Your task to perform on an android device: open chrome and create a bookmark for the current page Image 0: 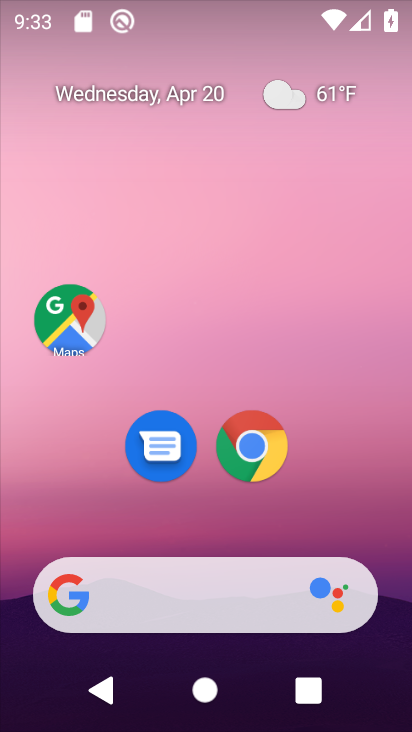
Step 0: drag from (373, 490) to (322, 95)
Your task to perform on an android device: open chrome and create a bookmark for the current page Image 1: 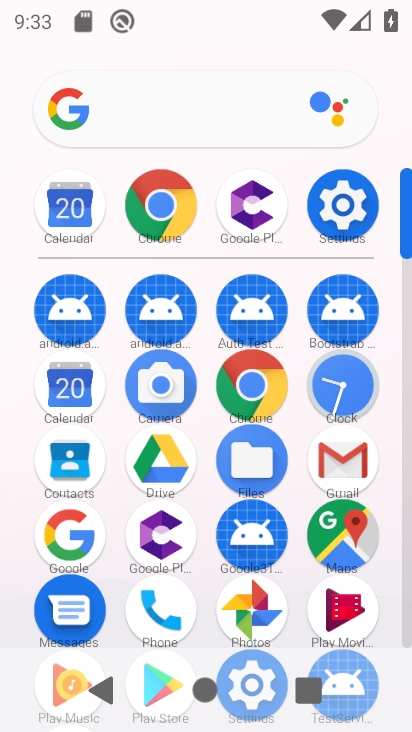
Step 1: click (264, 376)
Your task to perform on an android device: open chrome and create a bookmark for the current page Image 2: 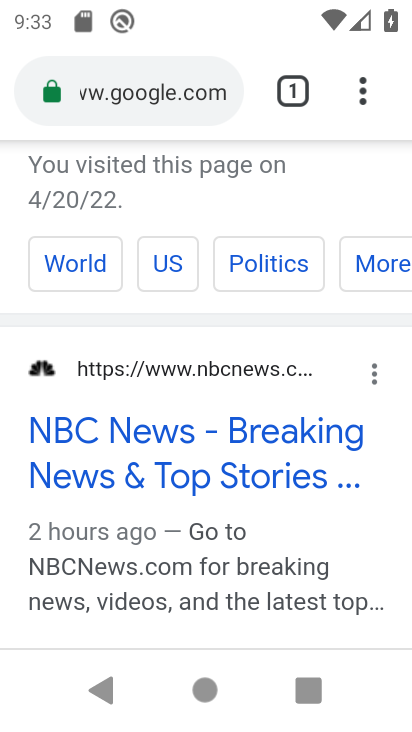
Step 2: drag from (333, 185) to (286, 595)
Your task to perform on an android device: open chrome and create a bookmark for the current page Image 3: 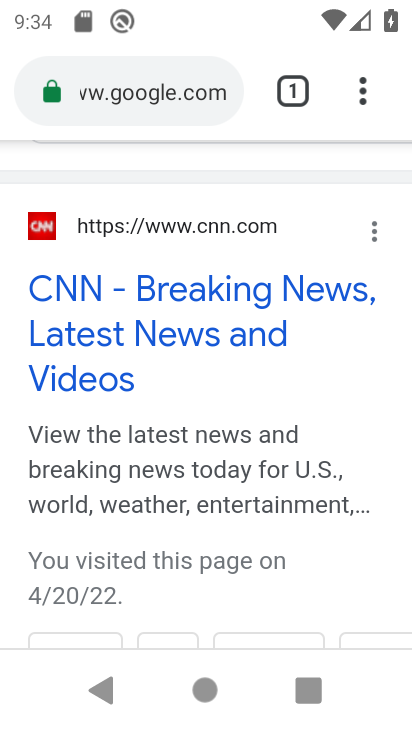
Step 3: click (305, 93)
Your task to perform on an android device: open chrome and create a bookmark for the current page Image 4: 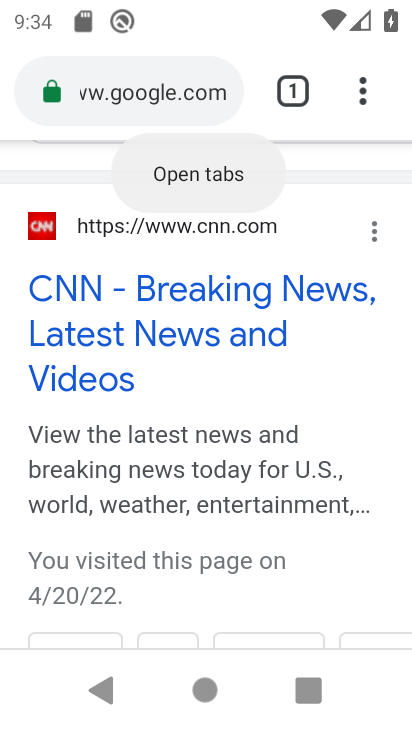
Step 4: click (304, 93)
Your task to perform on an android device: open chrome and create a bookmark for the current page Image 5: 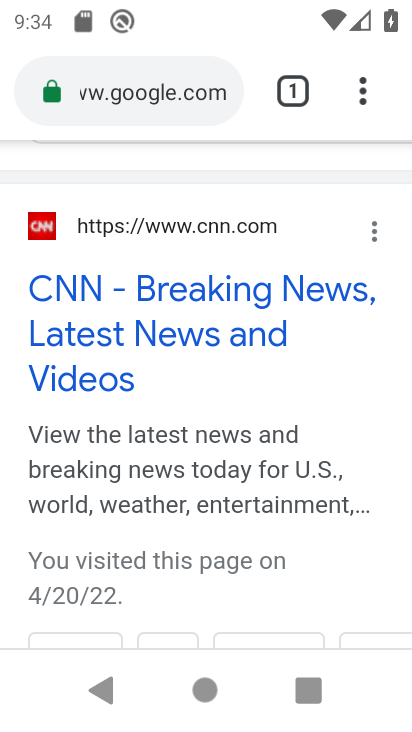
Step 5: click (300, 95)
Your task to perform on an android device: open chrome and create a bookmark for the current page Image 6: 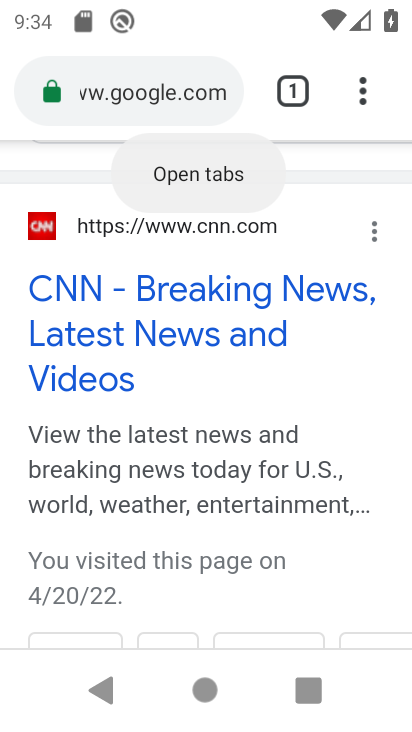
Step 6: click (300, 95)
Your task to perform on an android device: open chrome and create a bookmark for the current page Image 7: 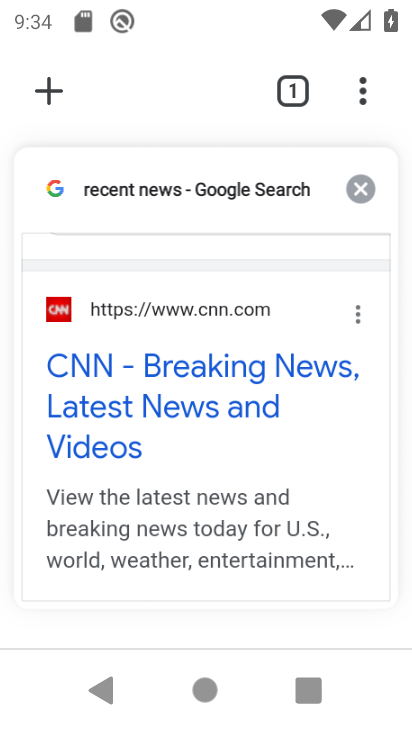
Step 7: click (51, 95)
Your task to perform on an android device: open chrome and create a bookmark for the current page Image 8: 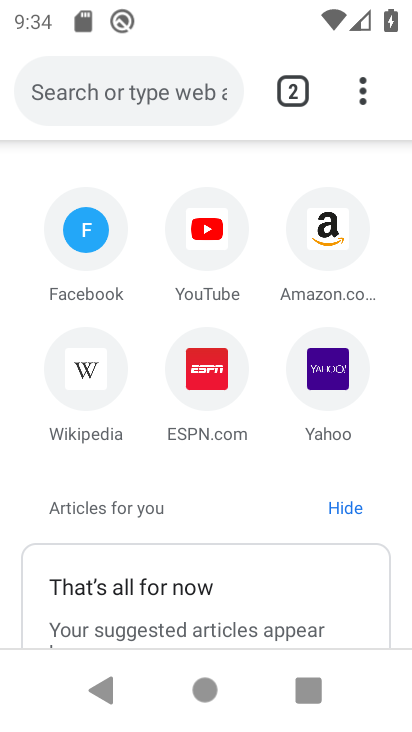
Step 8: click (73, 94)
Your task to perform on an android device: open chrome and create a bookmark for the current page Image 9: 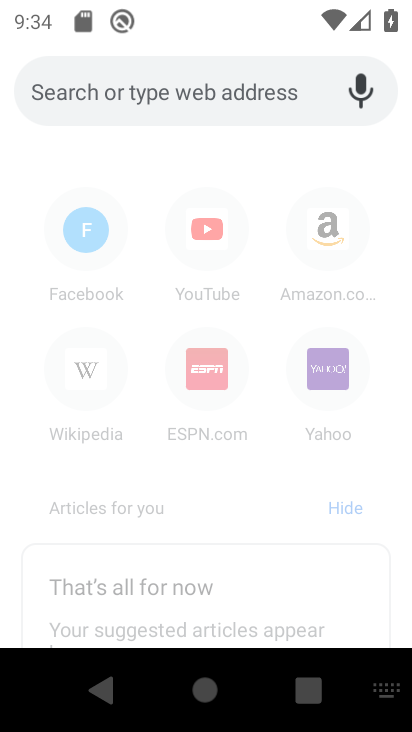
Step 9: type "football news"
Your task to perform on an android device: open chrome and create a bookmark for the current page Image 10: 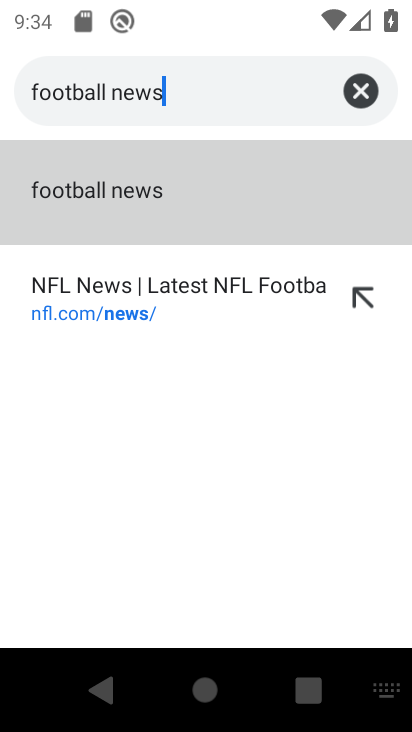
Step 10: click (140, 186)
Your task to perform on an android device: open chrome and create a bookmark for the current page Image 11: 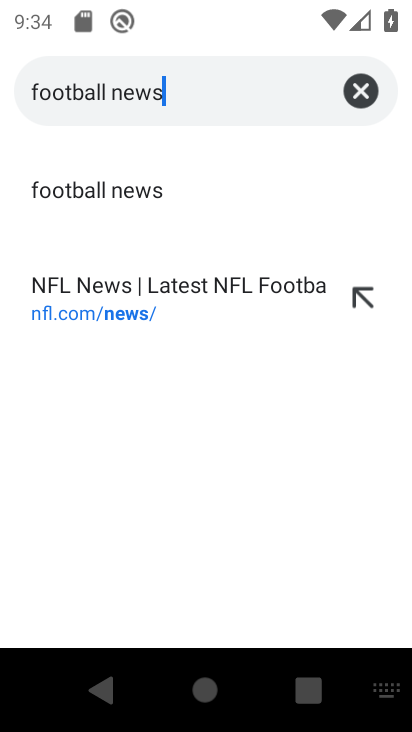
Step 11: click (130, 197)
Your task to perform on an android device: open chrome and create a bookmark for the current page Image 12: 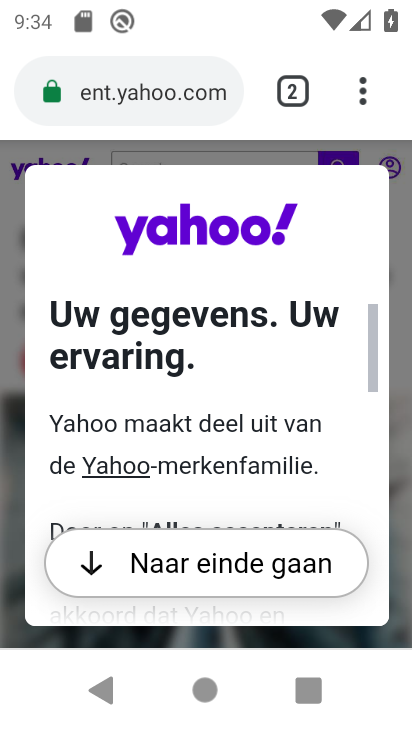
Step 12: drag from (398, 570) to (392, 255)
Your task to perform on an android device: open chrome and create a bookmark for the current page Image 13: 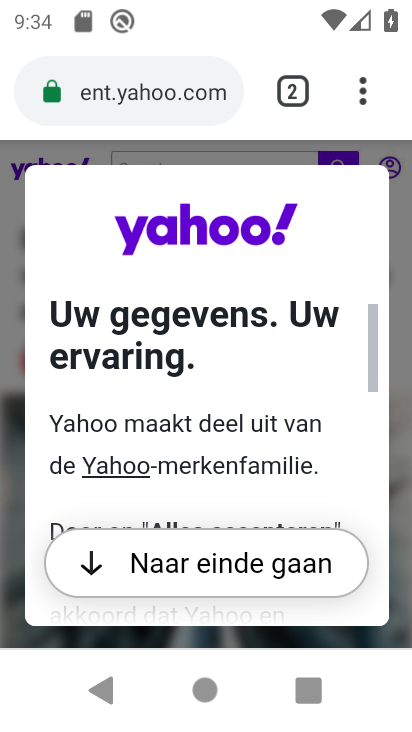
Step 13: click (79, 563)
Your task to perform on an android device: open chrome and create a bookmark for the current page Image 14: 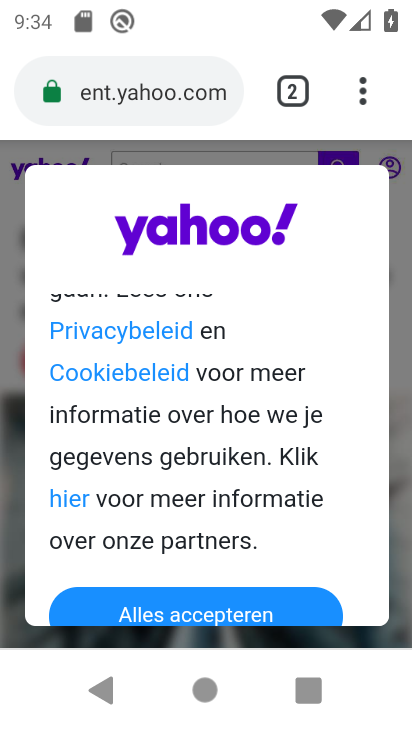
Step 14: click (261, 606)
Your task to perform on an android device: open chrome and create a bookmark for the current page Image 15: 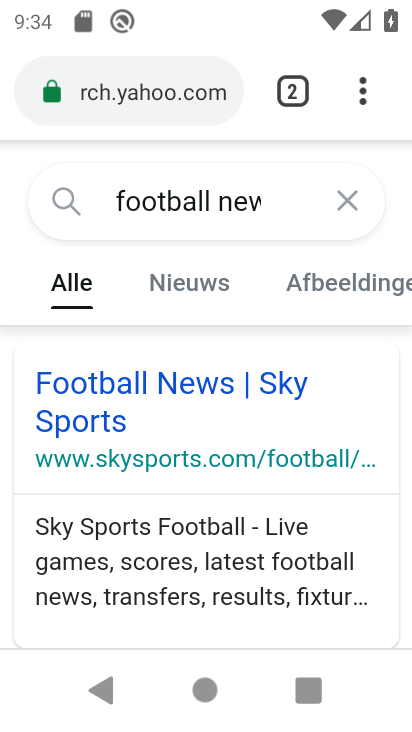
Step 15: click (154, 382)
Your task to perform on an android device: open chrome and create a bookmark for the current page Image 16: 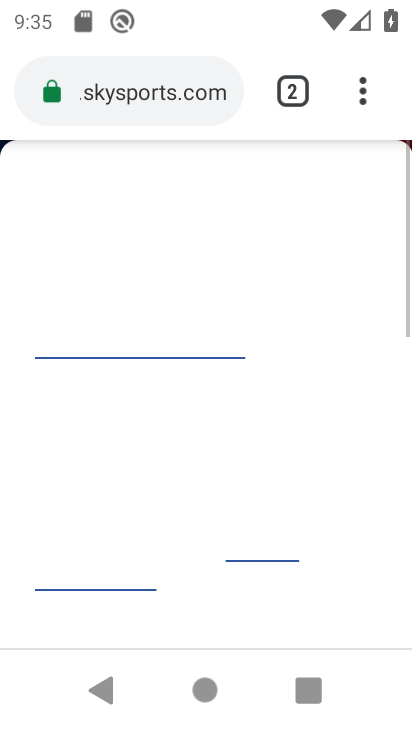
Step 16: click (369, 103)
Your task to perform on an android device: open chrome and create a bookmark for the current page Image 17: 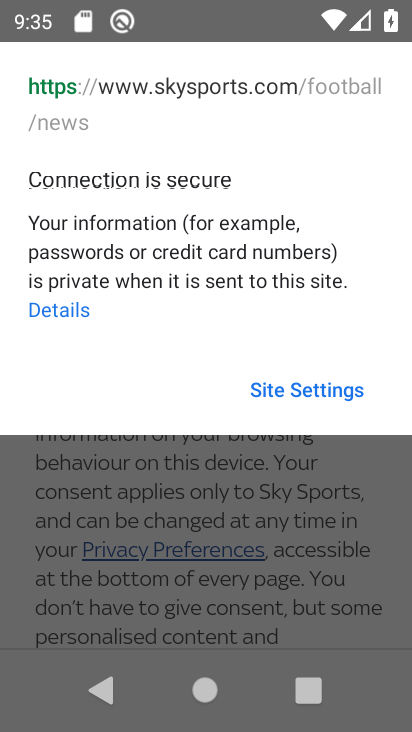
Step 17: task complete